Your task to perform on an android device: change text size in settings app Image 0: 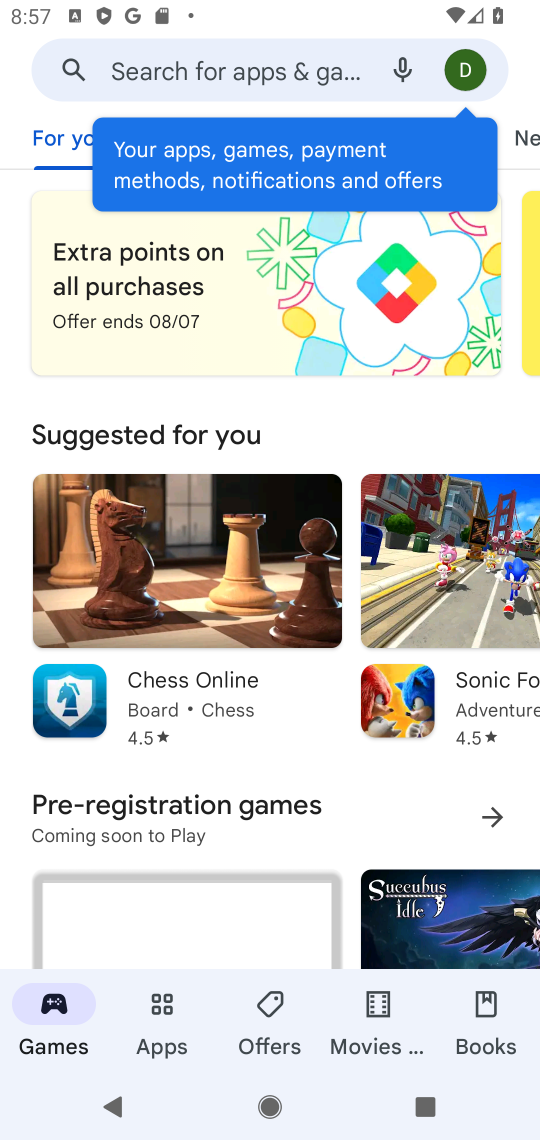
Step 0: press home button
Your task to perform on an android device: change text size in settings app Image 1: 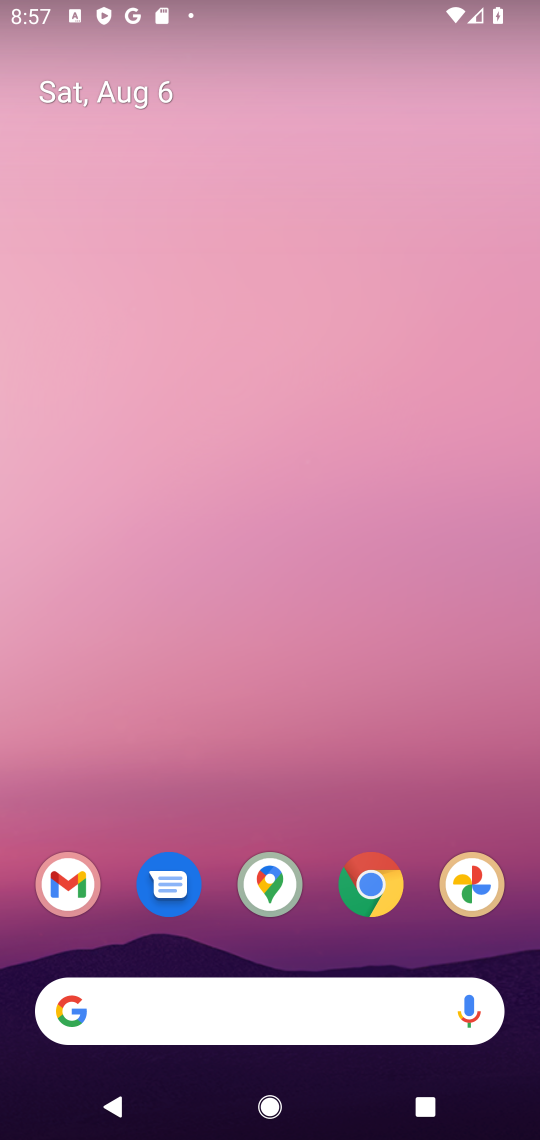
Step 1: drag from (421, 948) to (438, 183)
Your task to perform on an android device: change text size in settings app Image 2: 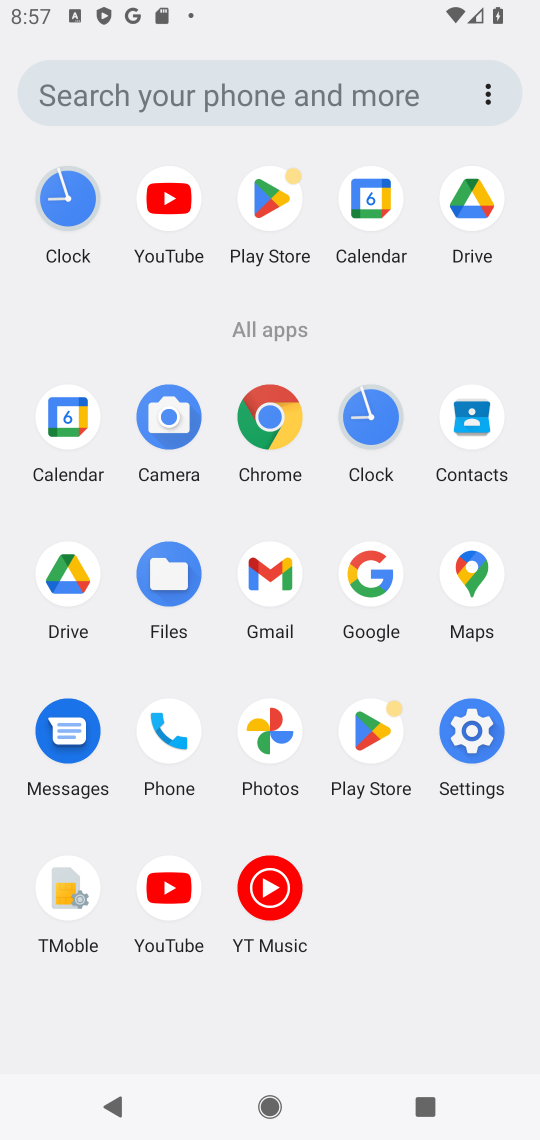
Step 2: click (471, 730)
Your task to perform on an android device: change text size in settings app Image 3: 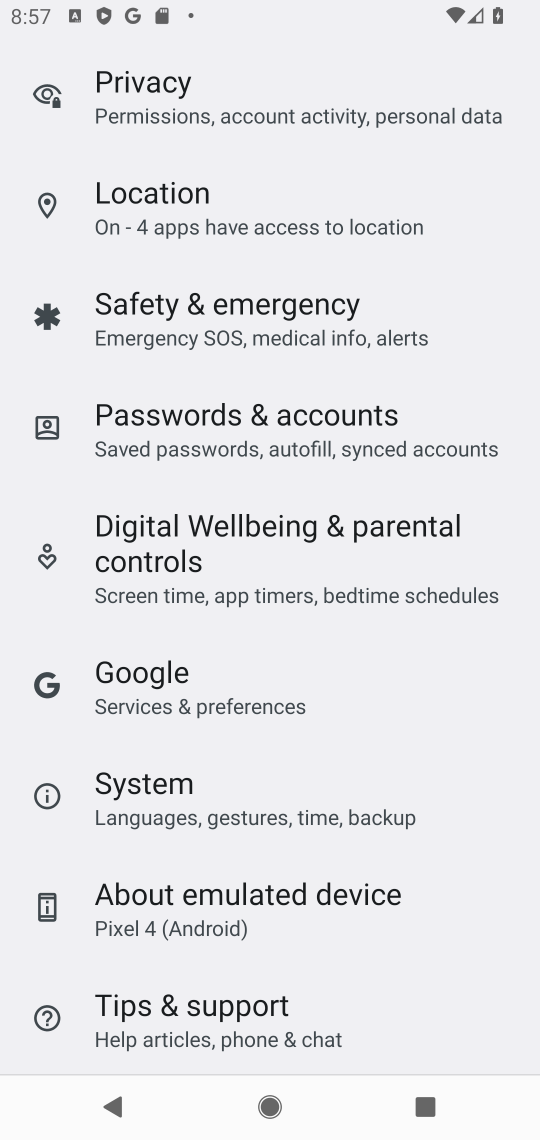
Step 3: drag from (386, 262) to (355, 702)
Your task to perform on an android device: change text size in settings app Image 4: 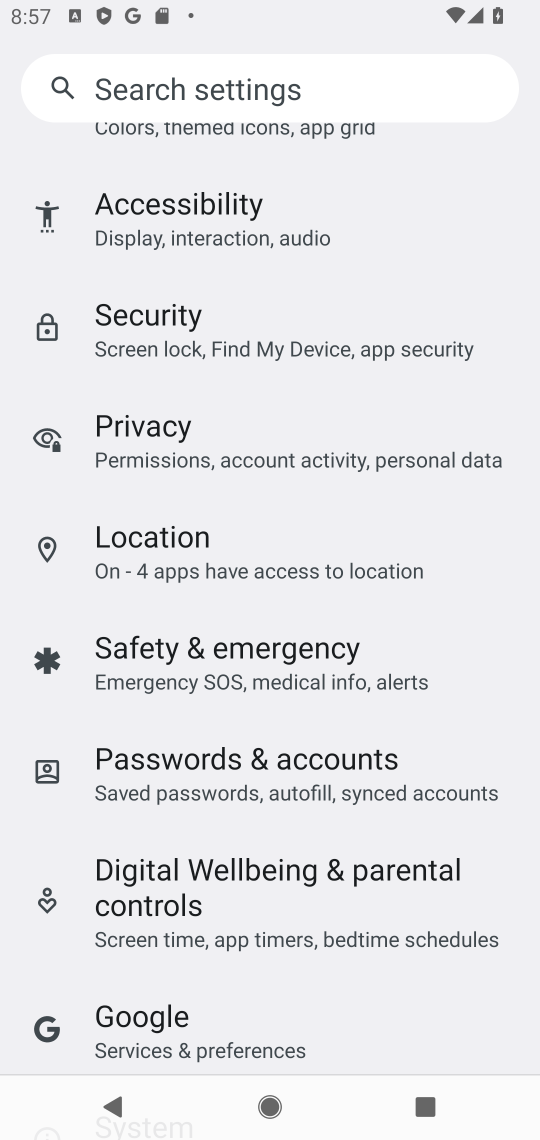
Step 4: drag from (440, 220) to (428, 712)
Your task to perform on an android device: change text size in settings app Image 5: 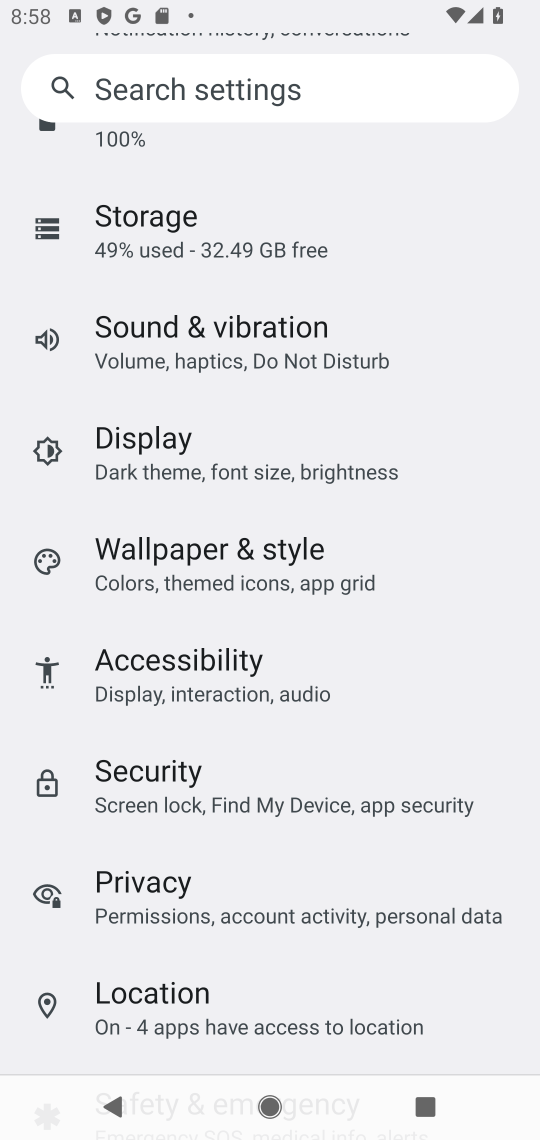
Step 5: drag from (437, 268) to (429, 486)
Your task to perform on an android device: change text size in settings app Image 6: 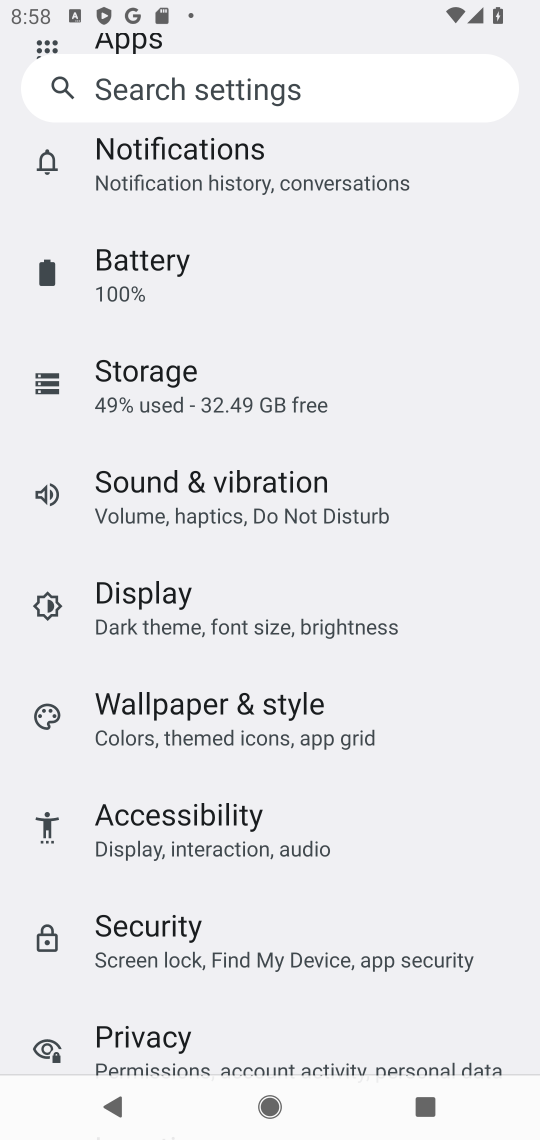
Step 6: click (157, 593)
Your task to perform on an android device: change text size in settings app Image 7: 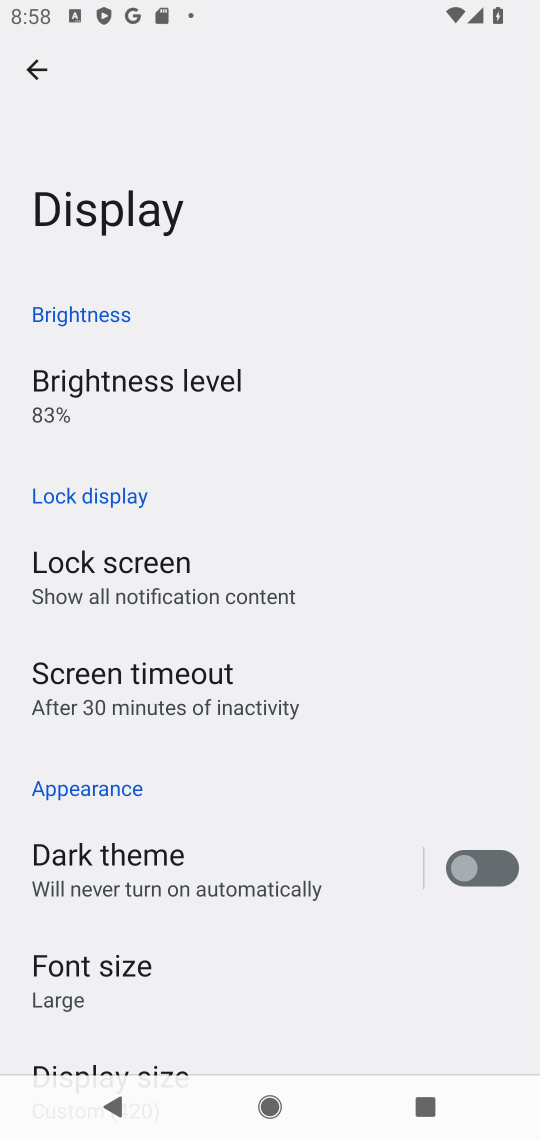
Step 7: drag from (347, 925) to (330, 516)
Your task to perform on an android device: change text size in settings app Image 8: 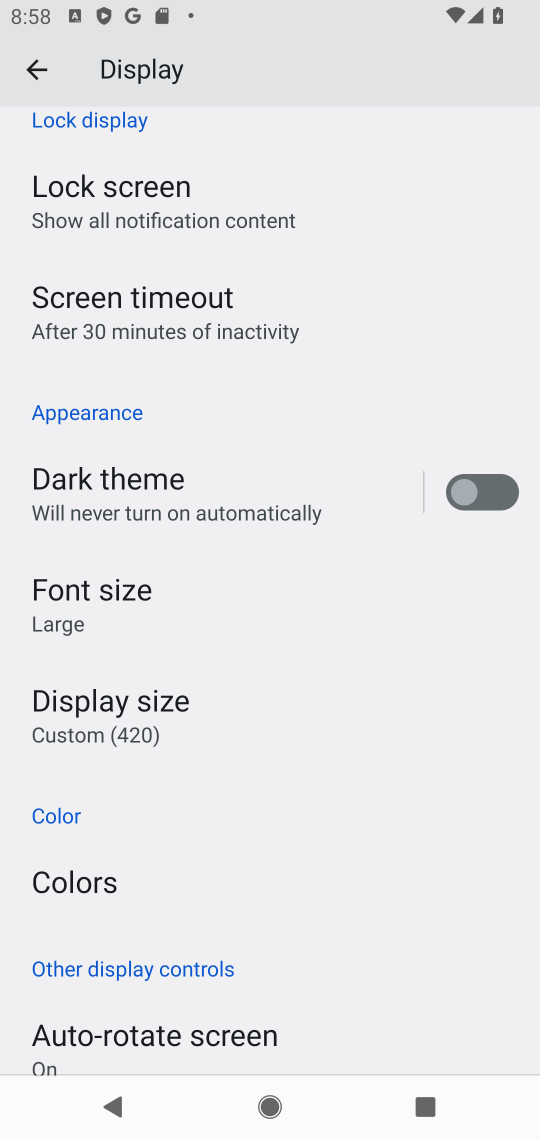
Step 8: click (71, 598)
Your task to perform on an android device: change text size in settings app Image 9: 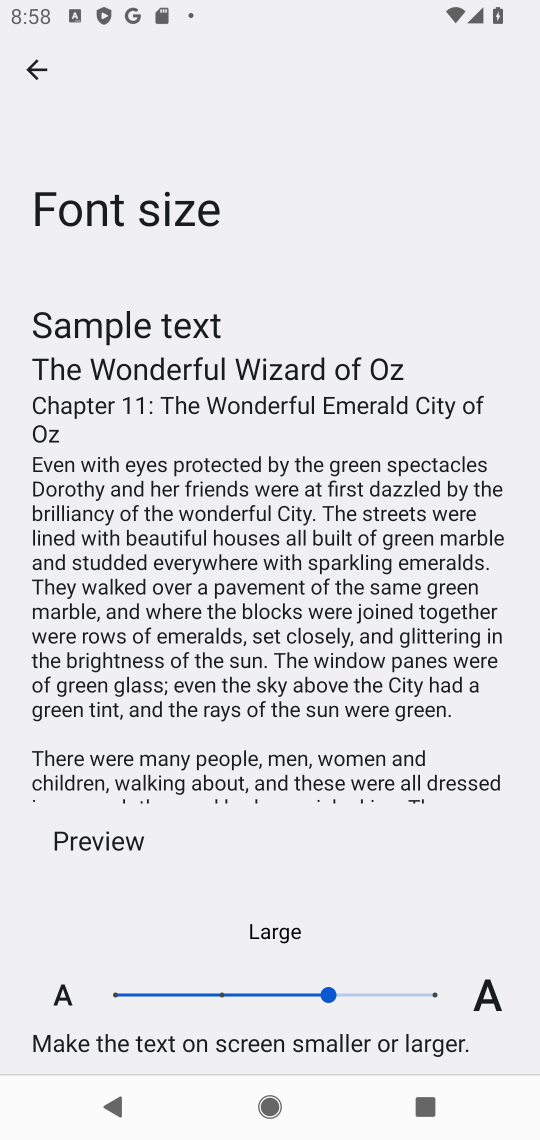
Step 9: click (431, 997)
Your task to perform on an android device: change text size in settings app Image 10: 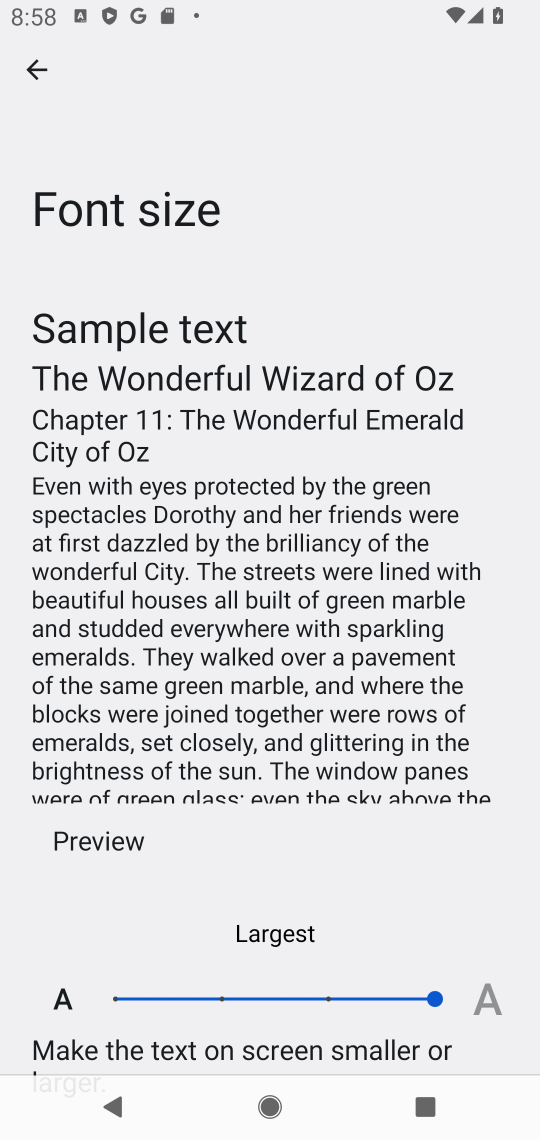
Step 10: task complete